Your task to perform on an android device: Open Amazon Image 0: 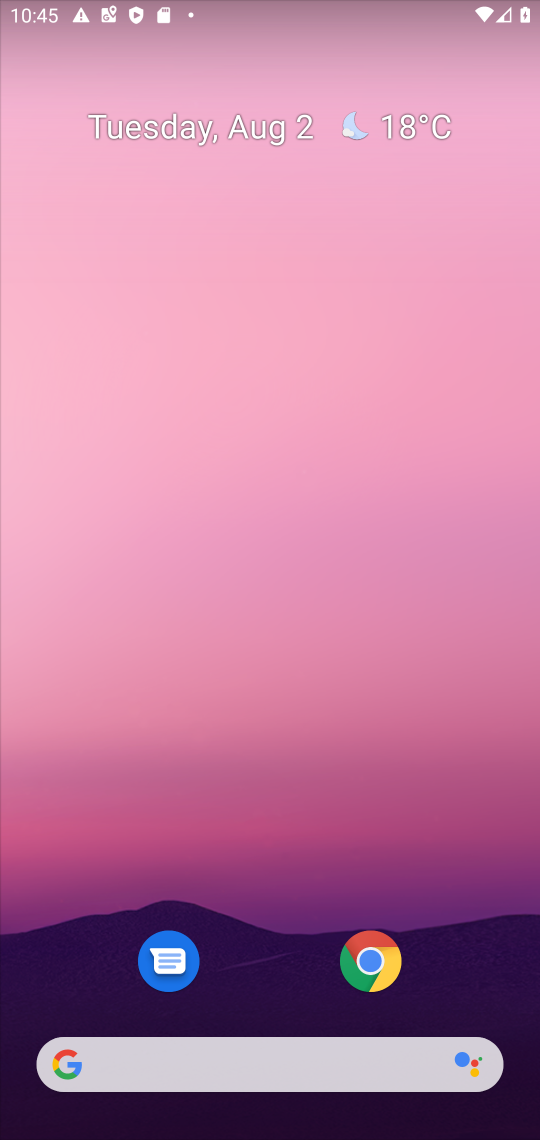
Step 0: press home button
Your task to perform on an android device: Open Amazon Image 1: 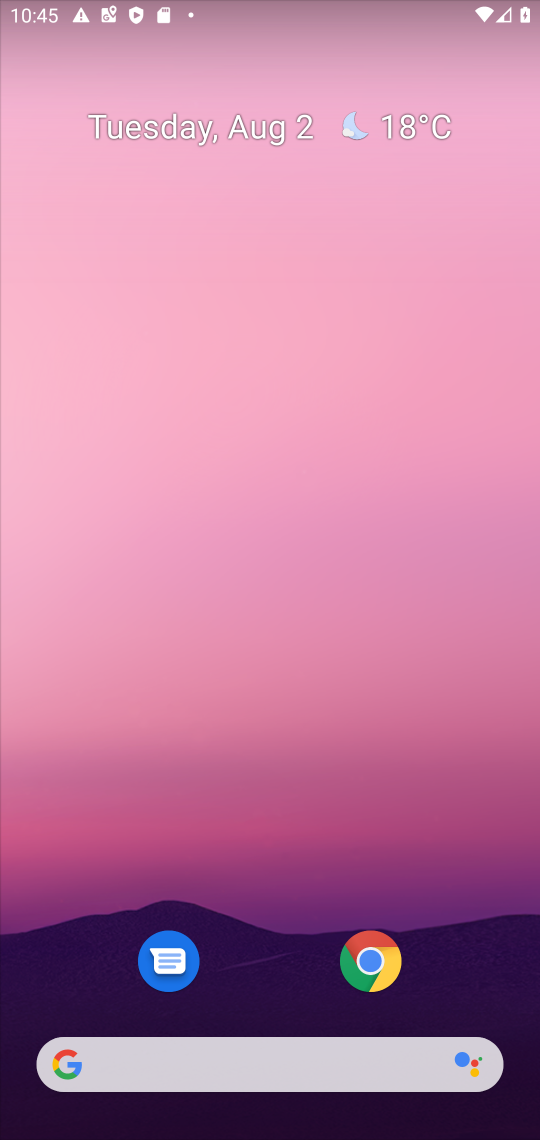
Step 1: click (359, 969)
Your task to perform on an android device: Open Amazon Image 2: 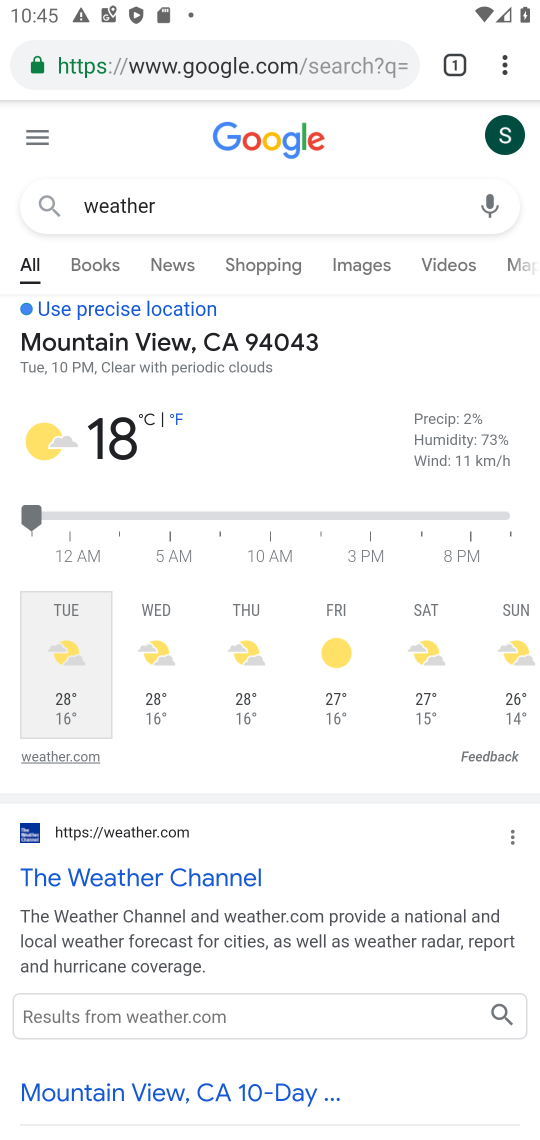
Step 2: drag from (500, 57) to (15, 448)
Your task to perform on an android device: Open Amazon Image 3: 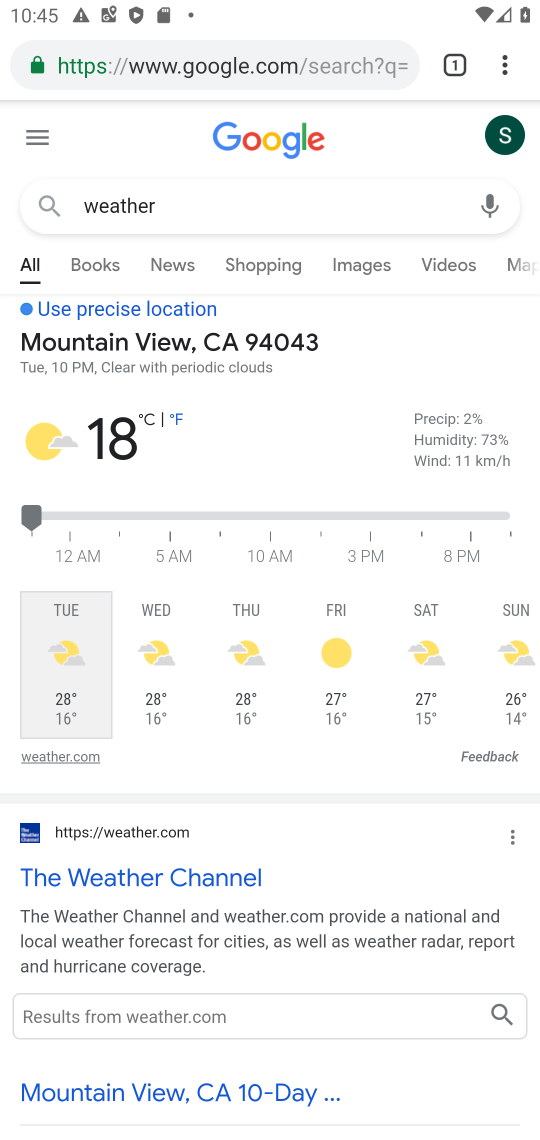
Step 3: click (85, 202)
Your task to perform on an android device: Open Amazon Image 4: 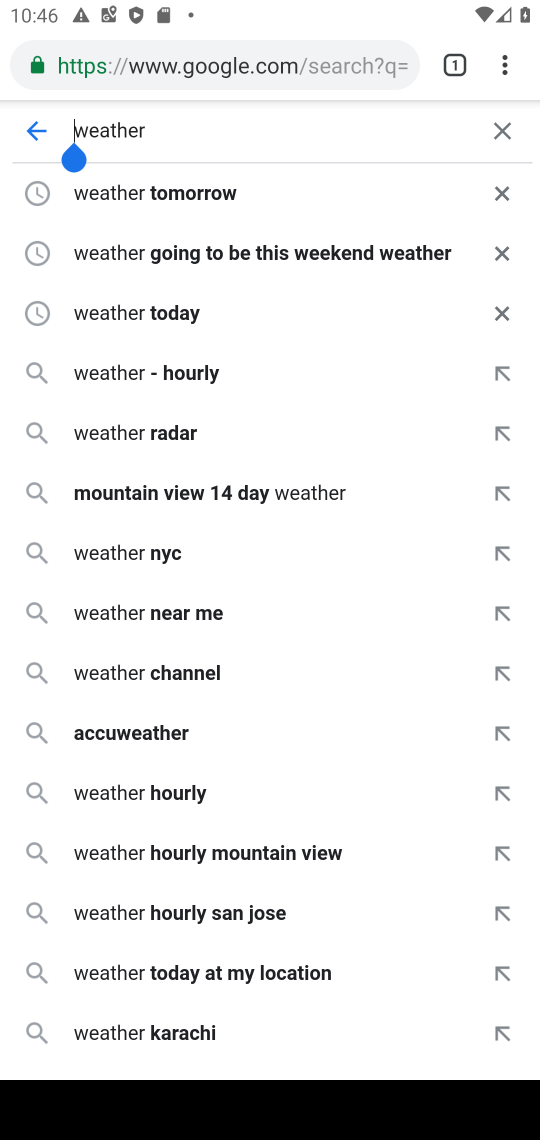
Step 4: click (510, 119)
Your task to perform on an android device: Open Amazon Image 5: 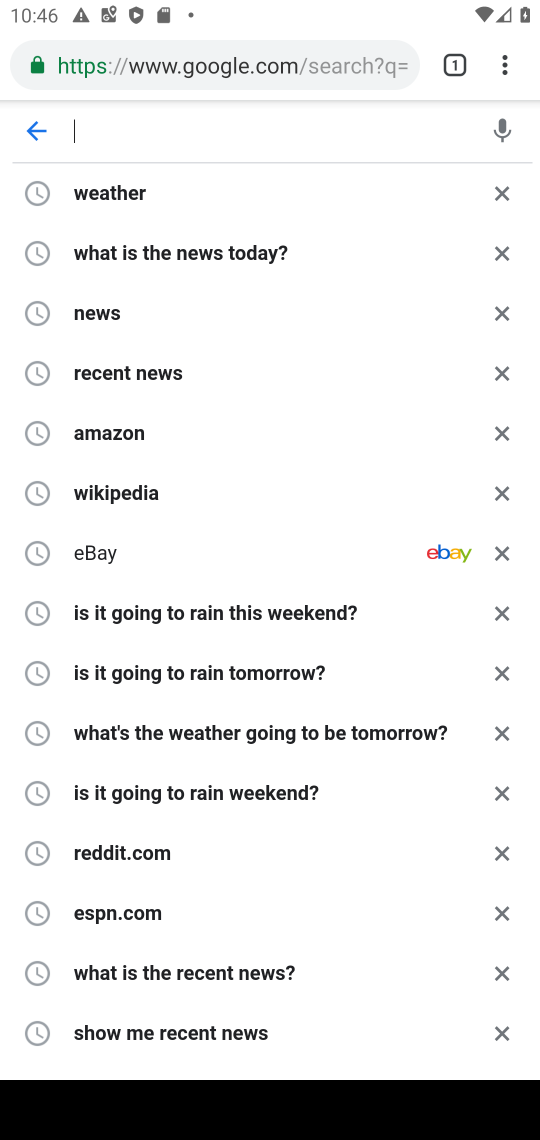
Step 5: type "amazon"
Your task to perform on an android device: Open Amazon Image 6: 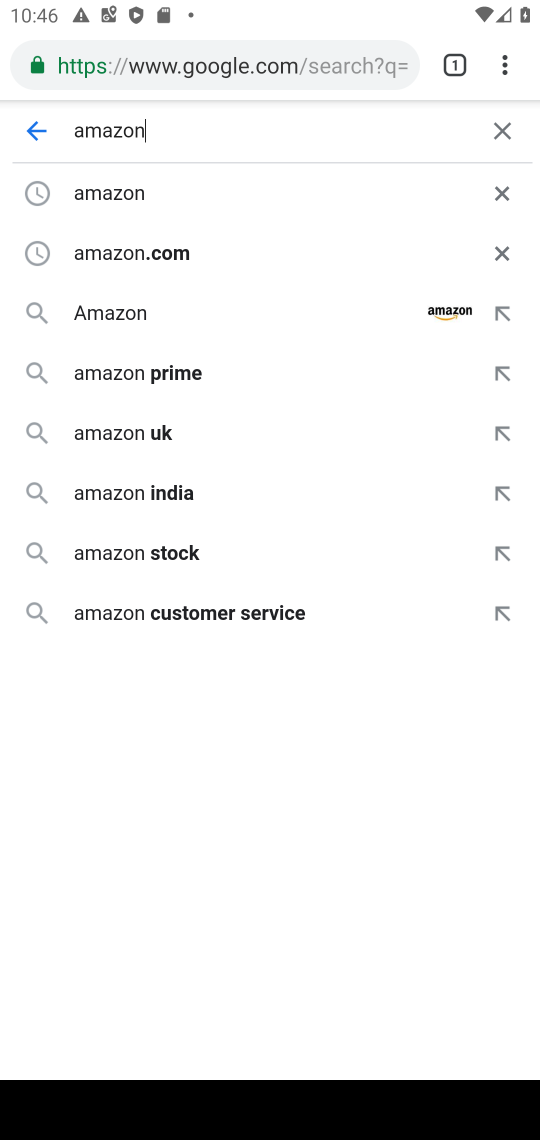
Step 6: click (140, 183)
Your task to perform on an android device: Open Amazon Image 7: 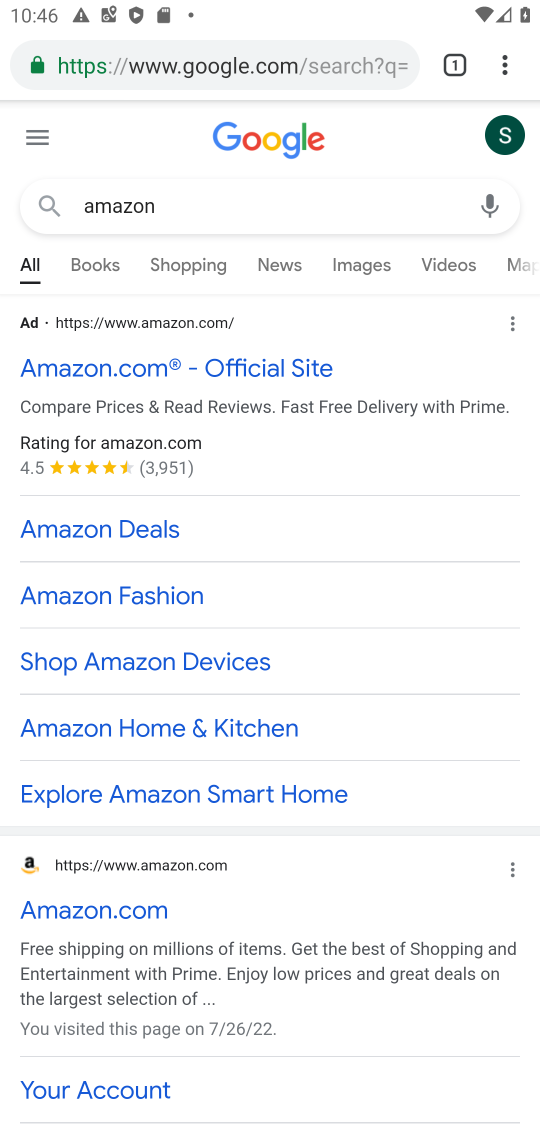
Step 7: click (120, 375)
Your task to perform on an android device: Open Amazon Image 8: 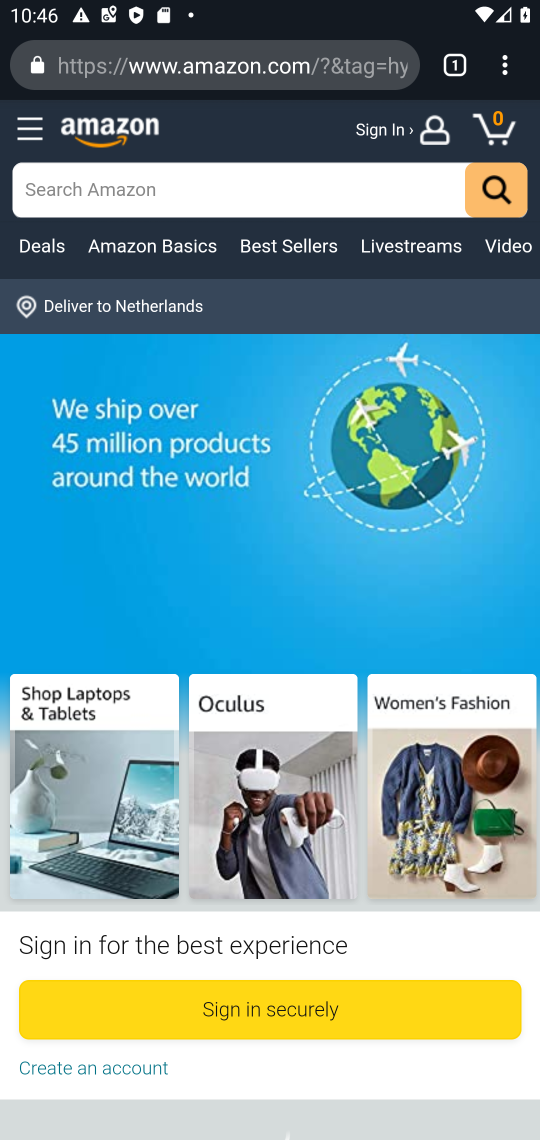
Step 8: task complete